Your task to perform on an android device: Go to Yahoo.com Image 0: 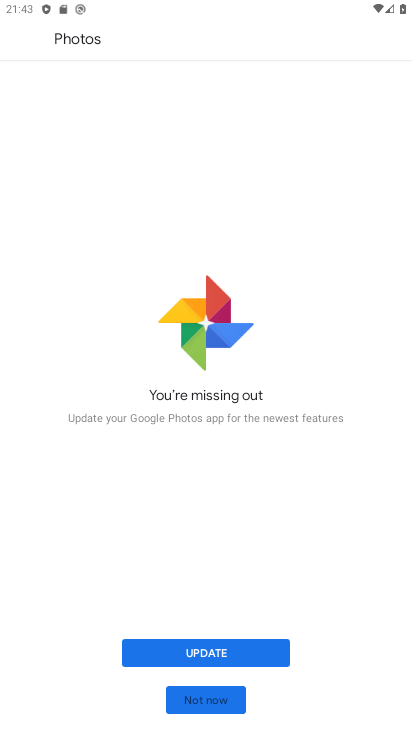
Step 0: press home button
Your task to perform on an android device: Go to Yahoo.com Image 1: 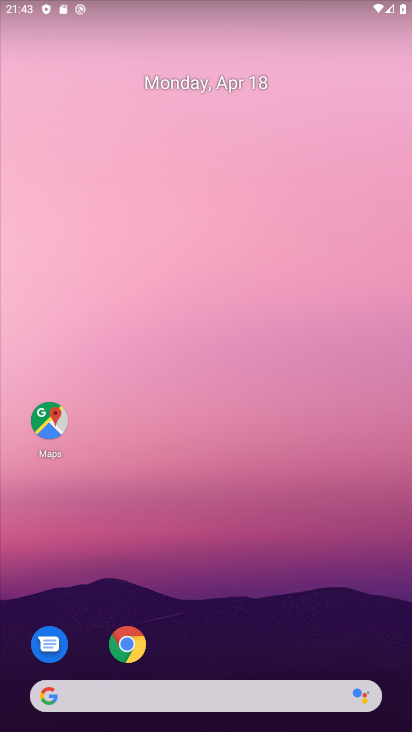
Step 1: click (127, 636)
Your task to perform on an android device: Go to Yahoo.com Image 2: 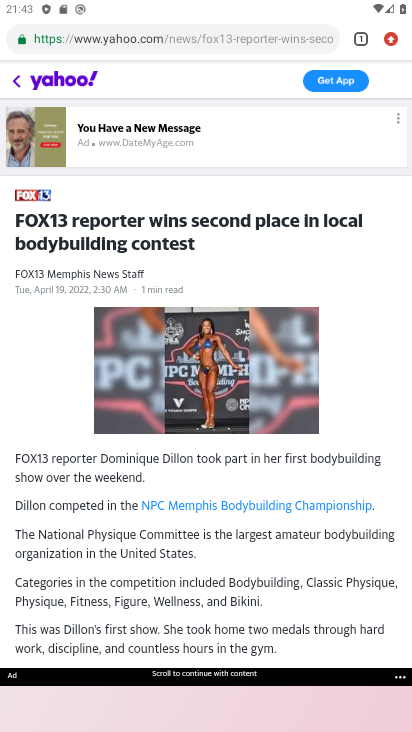
Step 2: task complete